Your task to perform on an android device: Turn on the flashlight Image 0: 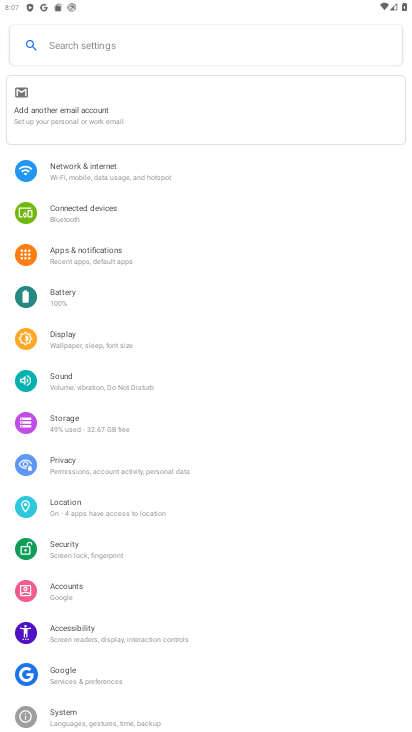
Step 0: drag from (286, 146) to (299, 295)
Your task to perform on an android device: Turn on the flashlight Image 1: 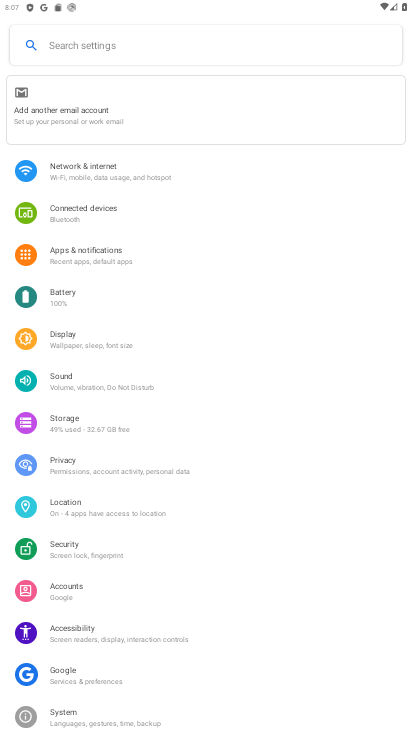
Step 1: task complete